Your task to perform on an android device: Open calendar and show me the second week of next month Image 0: 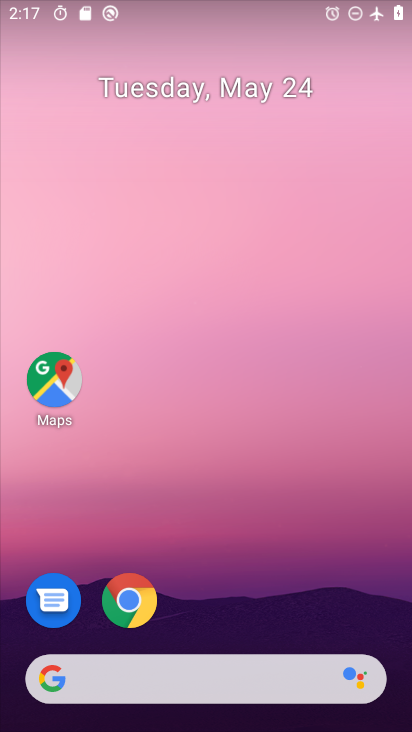
Step 0: drag from (274, 487) to (253, 65)
Your task to perform on an android device: Open calendar and show me the second week of next month Image 1: 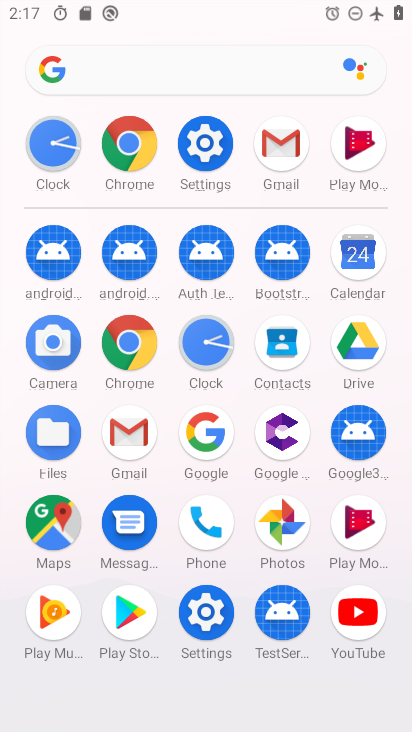
Step 1: click (351, 257)
Your task to perform on an android device: Open calendar and show me the second week of next month Image 2: 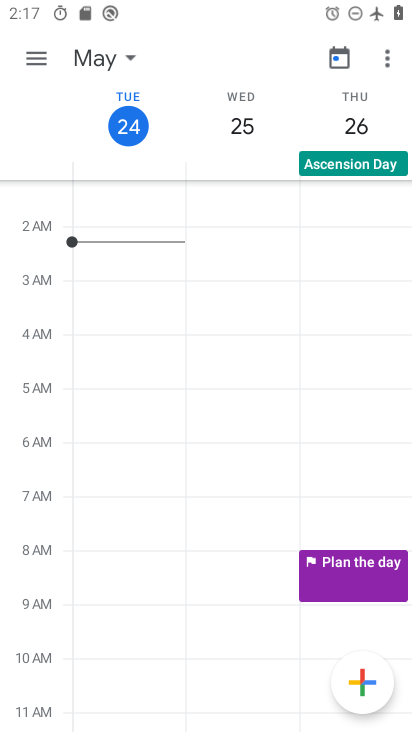
Step 2: click (81, 48)
Your task to perform on an android device: Open calendar and show me the second week of next month Image 3: 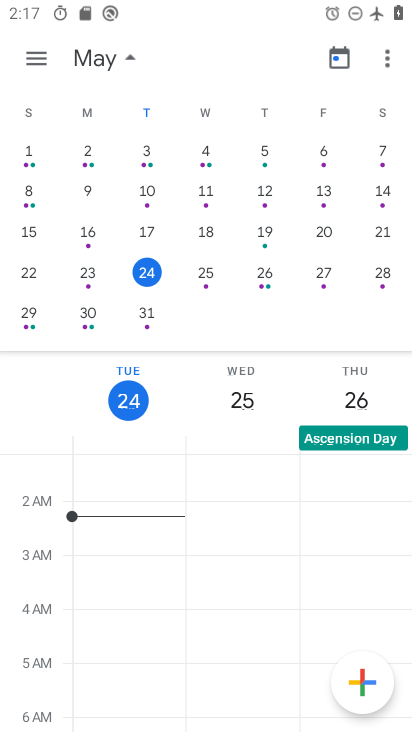
Step 3: drag from (358, 208) to (31, 204)
Your task to perform on an android device: Open calendar and show me the second week of next month Image 4: 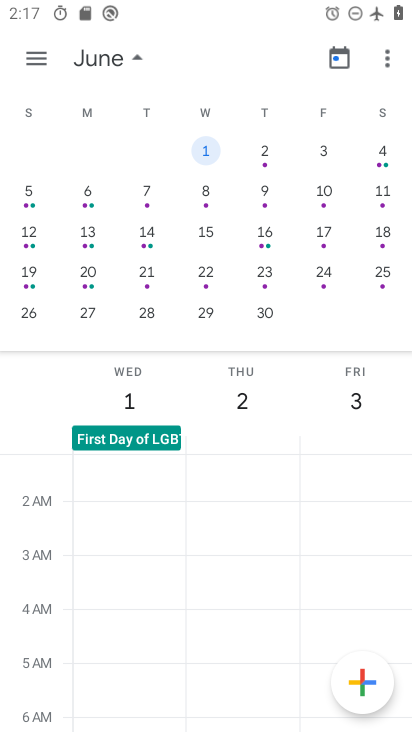
Step 4: click (34, 238)
Your task to perform on an android device: Open calendar and show me the second week of next month Image 5: 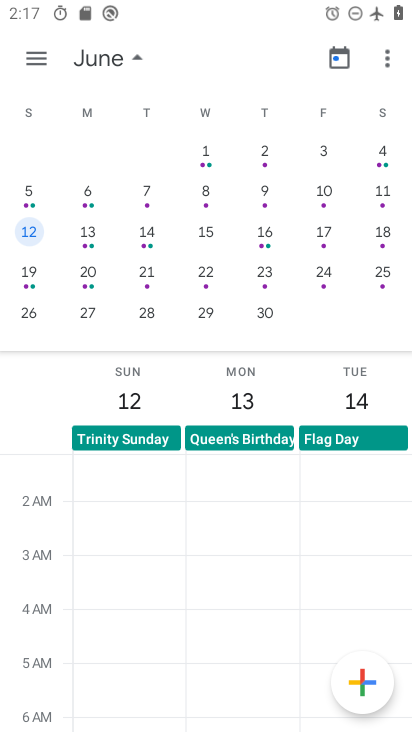
Step 5: click (41, 62)
Your task to perform on an android device: Open calendar and show me the second week of next month Image 6: 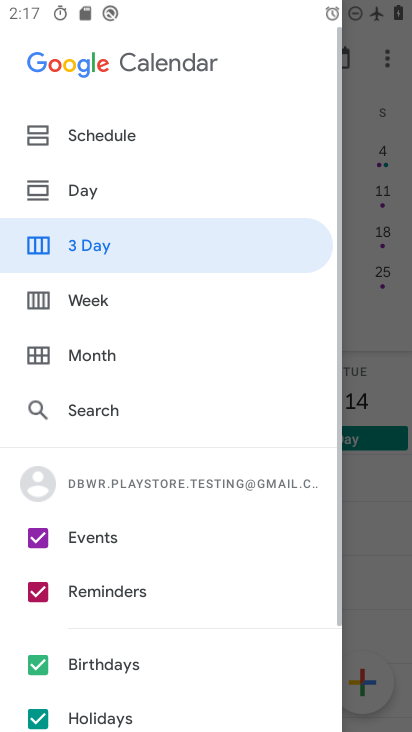
Step 6: click (95, 308)
Your task to perform on an android device: Open calendar and show me the second week of next month Image 7: 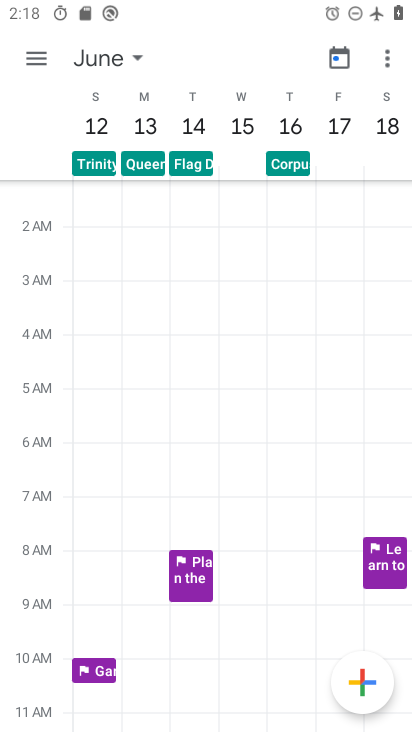
Step 7: task complete